Your task to perform on an android device: turn off sleep mode Image 0: 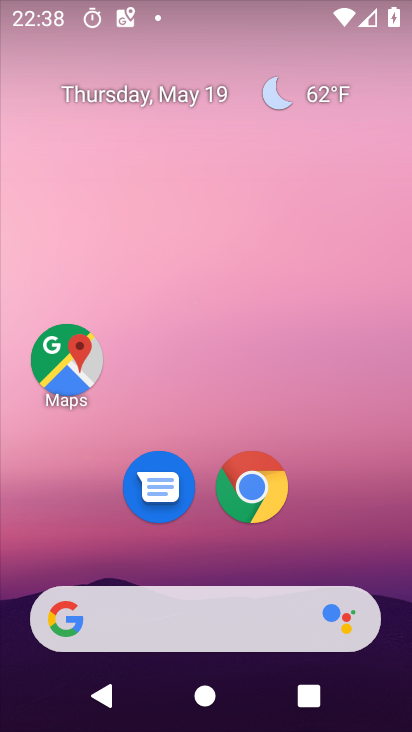
Step 0: drag from (351, 519) to (237, 84)
Your task to perform on an android device: turn off sleep mode Image 1: 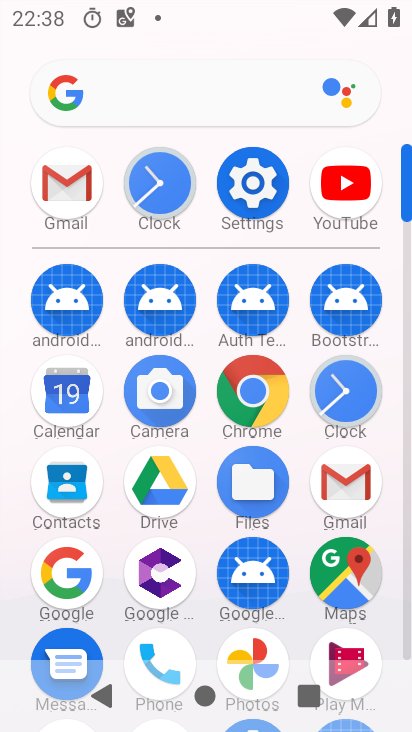
Step 1: click (264, 183)
Your task to perform on an android device: turn off sleep mode Image 2: 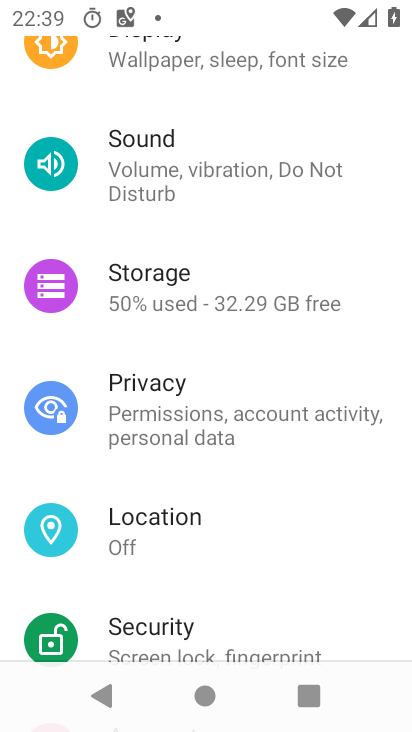
Step 2: drag from (257, 116) to (278, 345)
Your task to perform on an android device: turn off sleep mode Image 3: 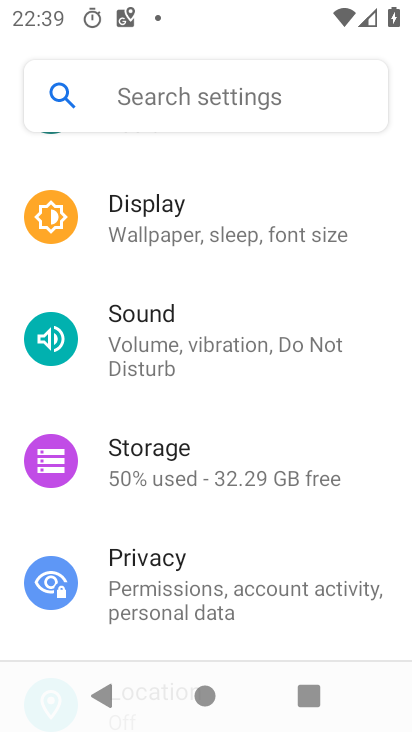
Step 3: click (264, 235)
Your task to perform on an android device: turn off sleep mode Image 4: 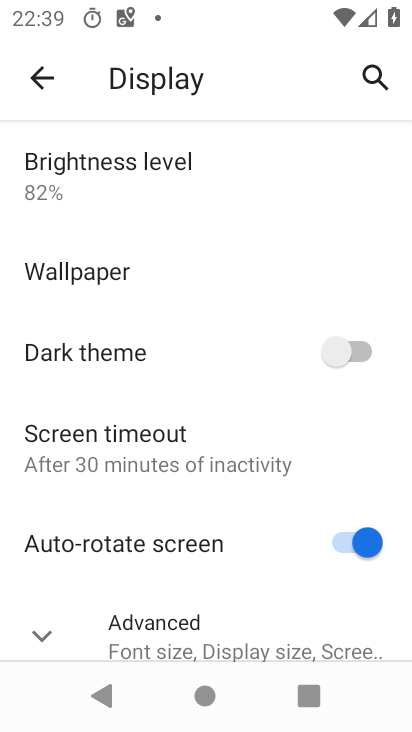
Step 4: click (229, 636)
Your task to perform on an android device: turn off sleep mode Image 5: 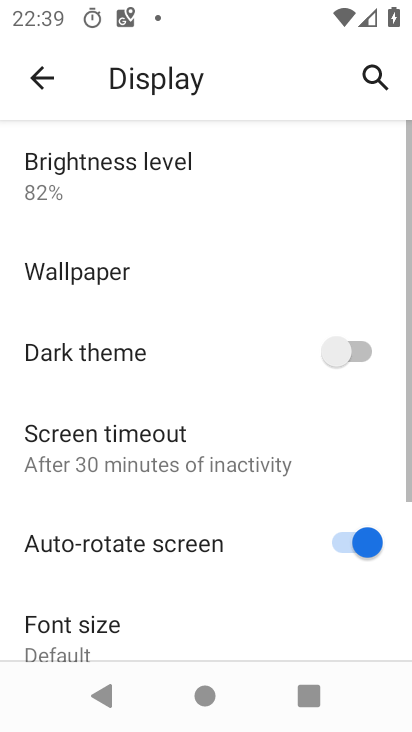
Step 5: task complete